Your task to perform on an android device: Go to settings Image 0: 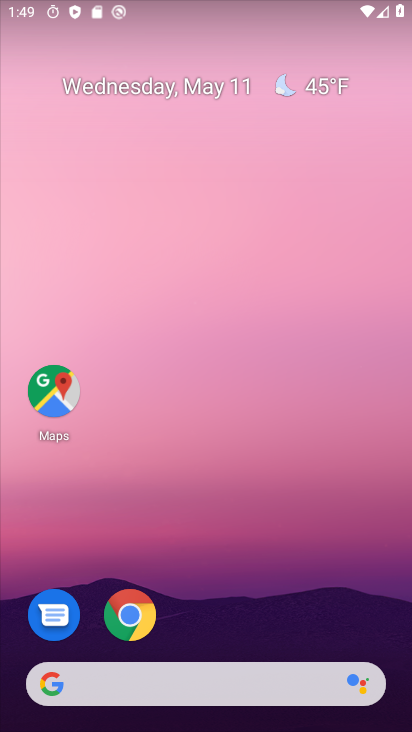
Step 0: drag from (187, 681) to (162, 85)
Your task to perform on an android device: Go to settings Image 1: 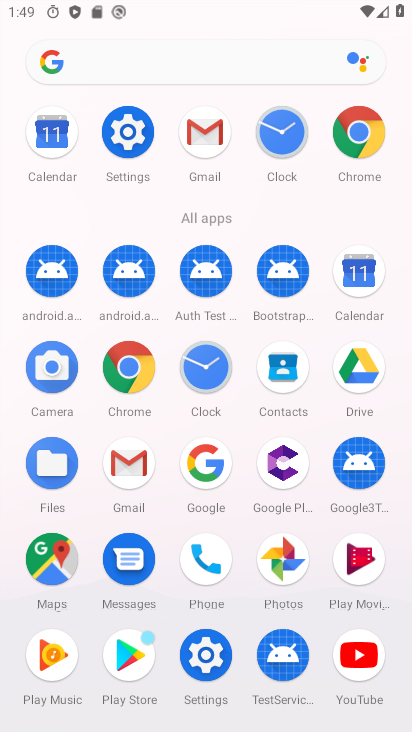
Step 1: click (118, 117)
Your task to perform on an android device: Go to settings Image 2: 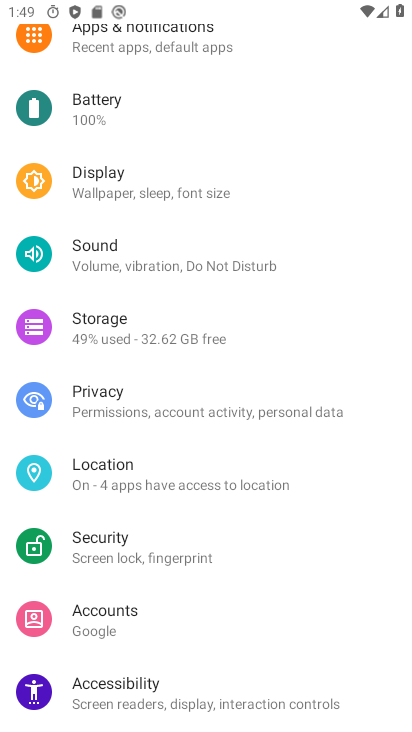
Step 2: task complete